Your task to perform on an android device: Go to ESPN.com Image 0: 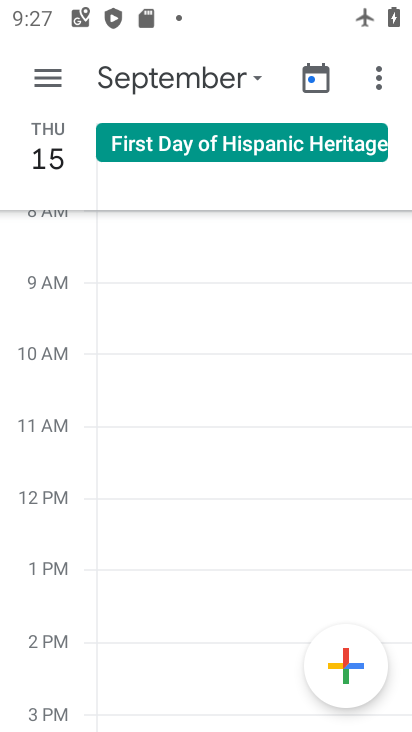
Step 0: press home button
Your task to perform on an android device: Go to ESPN.com Image 1: 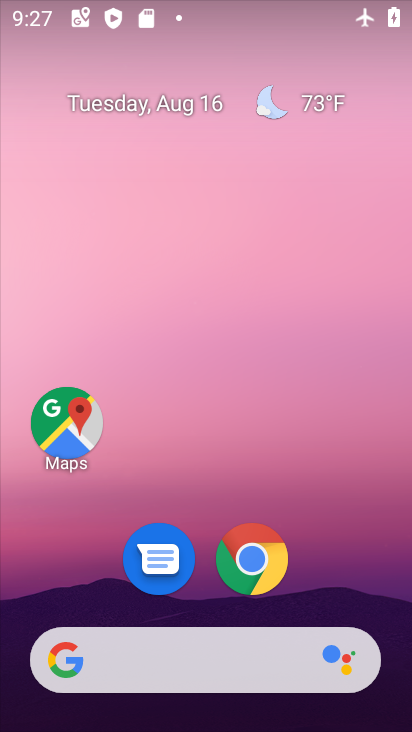
Step 1: click (248, 566)
Your task to perform on an android device: Go to ESPN.com Image 2: 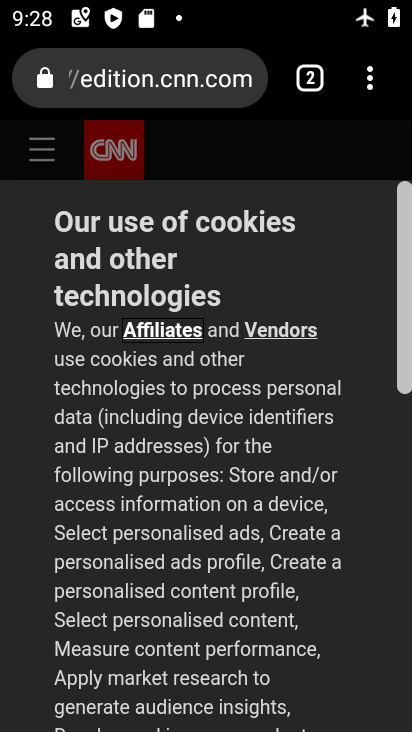
Step 2: click (198, 82)
Your task to perform on an android device: Go to ESPN.com Image 3: 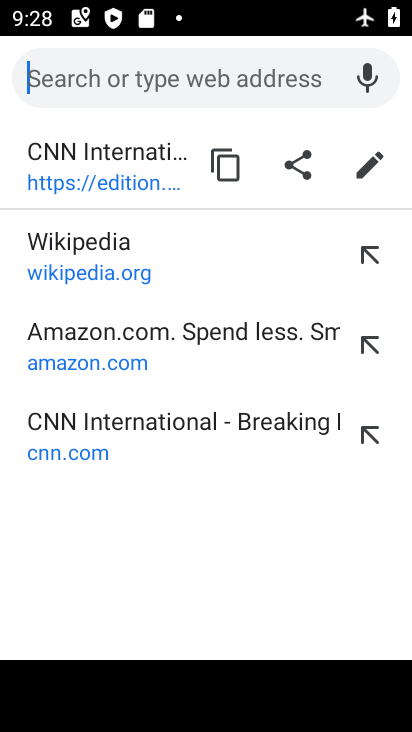
Step 3: type " ESPN.com"
Your task to perform on an android device: Go to ESPN.com Image 4: 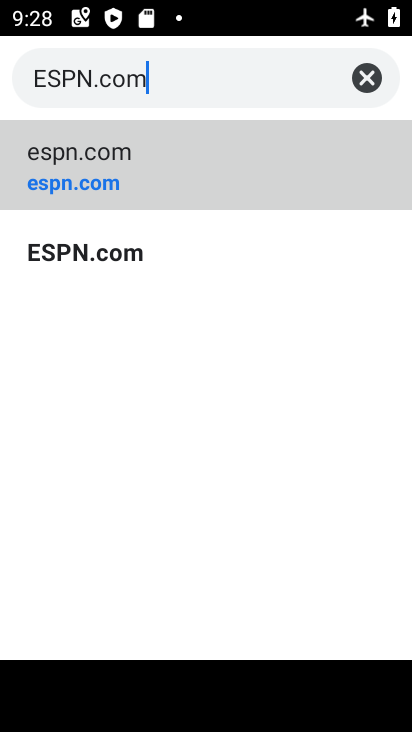
Step 4: click (45, 181)
Your task to perform on an android device: Go to ESPN.com Image 5: 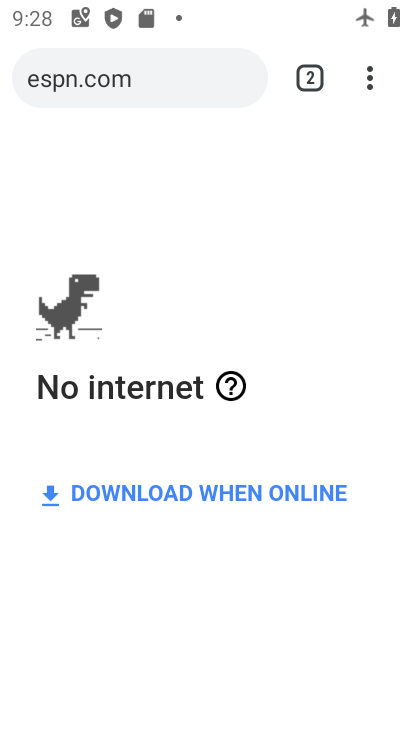
Step 5: drag from (372, 1) to (319, 585)
Your task to perform on an android device: Go to ESPN.com Image 6: 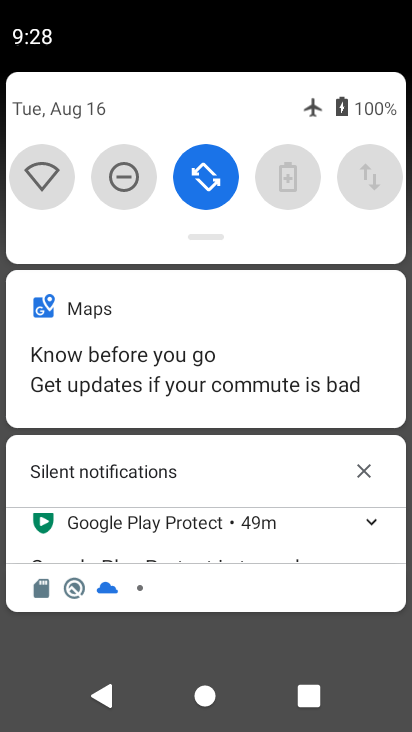
Step 6: drag from (387, 181) to (27, 210)
Your task to perform on an android device: Go to ESPN.com Image 7: 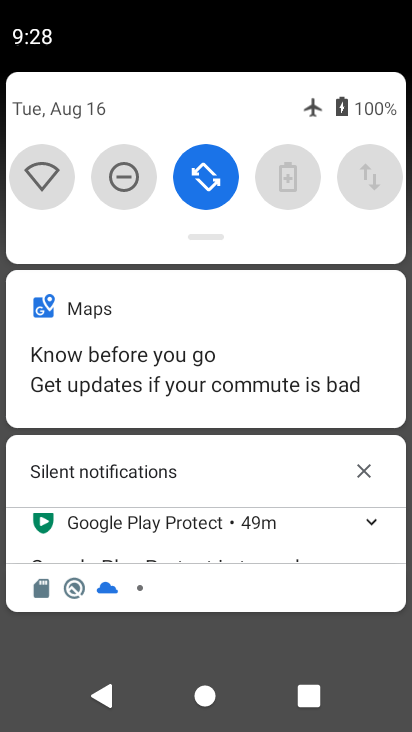
Step 7: drag from (266, 243) to (231, 603)
Your task to perform on an android device: Go to ESPN.com Image 8: 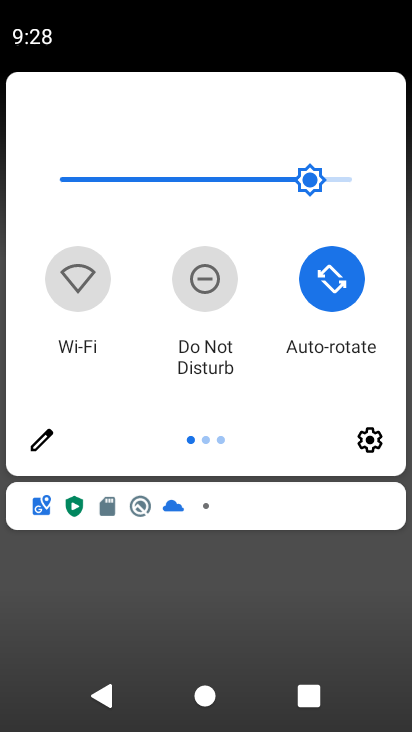
Step 8: drag from (379, 264) to (3, 285)
Your task to perform on an android device: Go to ESPN.com Image 9: 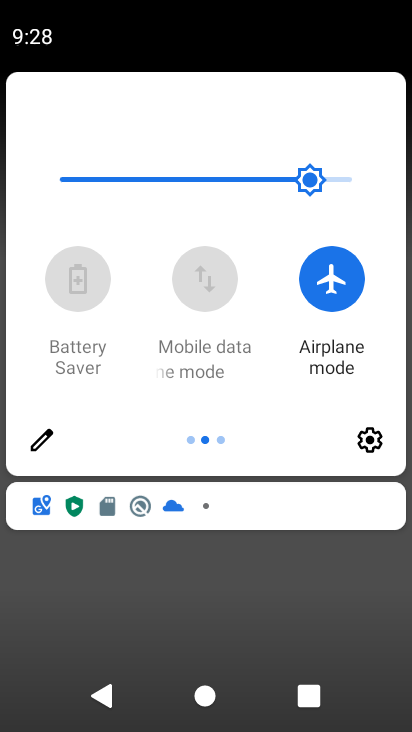
Step 9: click (320, 276)
Your task to perform on an android device: Go to ESPN.com Image 10: 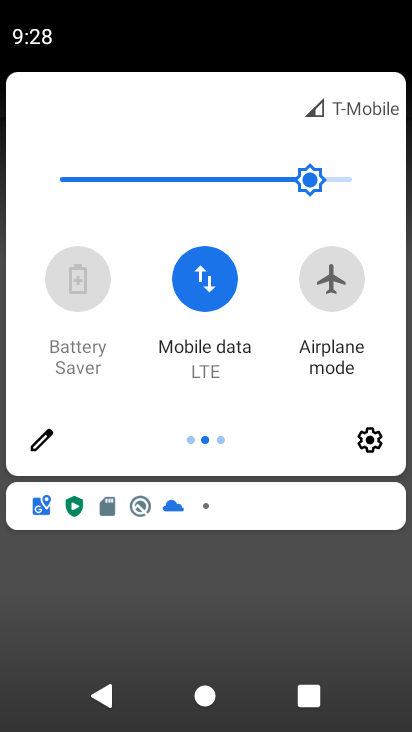
Step 10: task complete